Your task to perform on an android device: Go to accessibility settings Image 0: 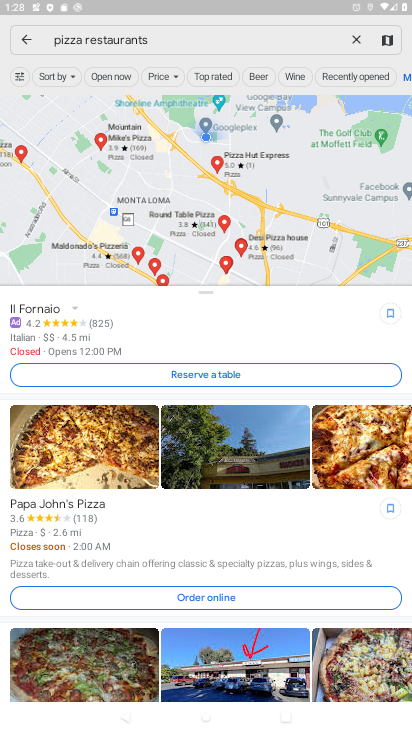
Step 0: press home button
Your task to perform on an android device: Go to accessibility settings Image 1: 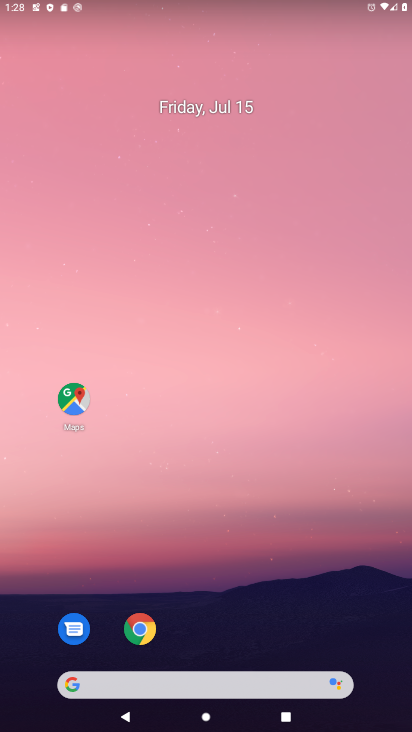
Step 1: drag from (177, 459) to (93, 53)
Your task to perform on an android device: Go to accessibility settings Image 2: 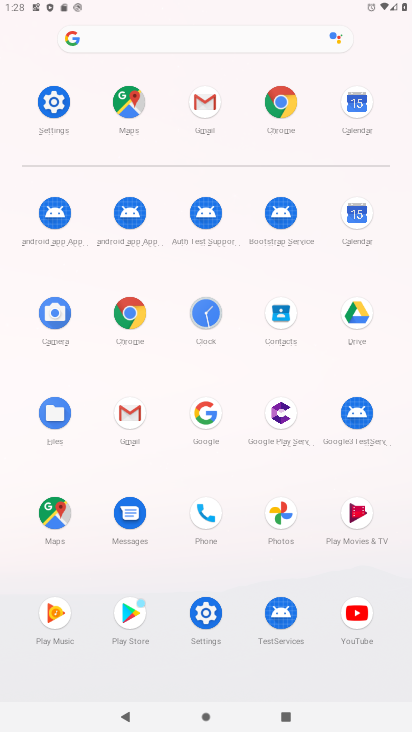
Step 2: click (51, 99)
Your task to perform on an android device: Go to accessibility settings Image 3: 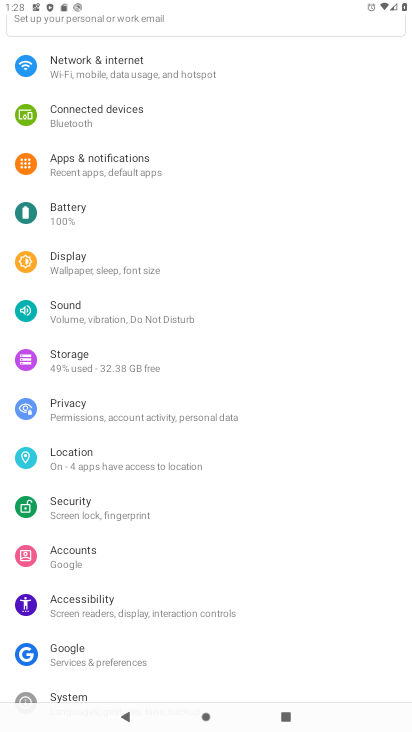
Step 3: click (106, 613)
Your task to perform on an android device: Go to accessibility settings Image 4: 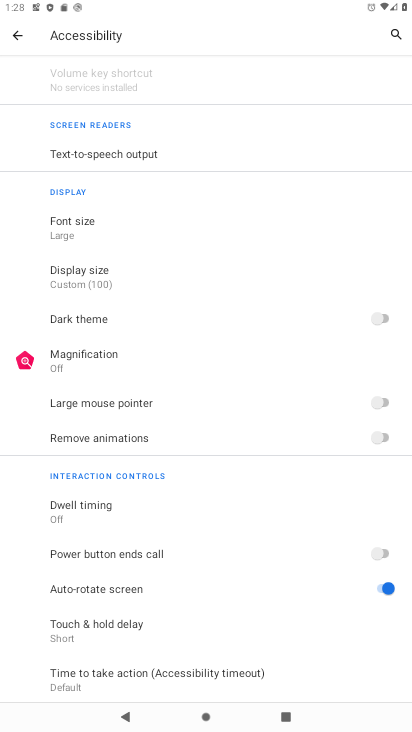
Step 4: task complete